Your task to perform on an android device: Open notification settings Image 0: 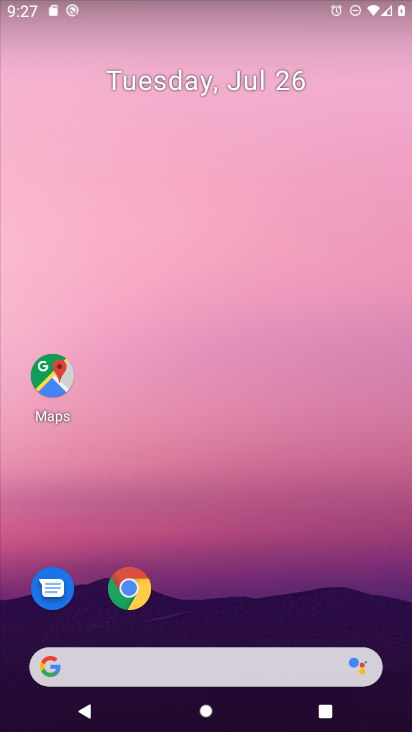
Step 0: drag from (218, 634) to (299, 33)
Your task to perform on an android device: Open notification settings Image 1: 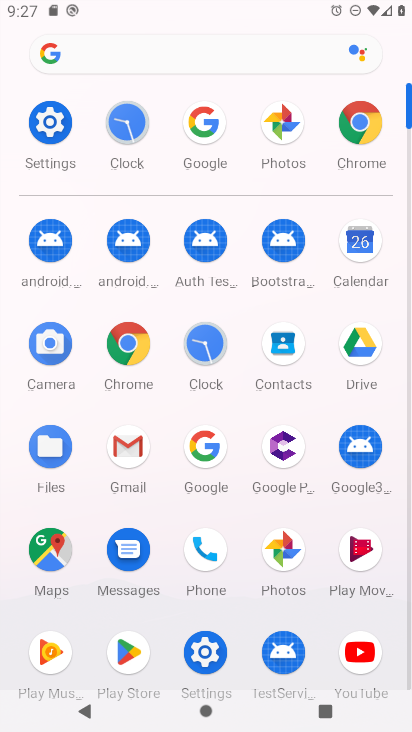
Step 1: click (65, 167)
Your task to perform on an android device: Open notification settings Image 2: 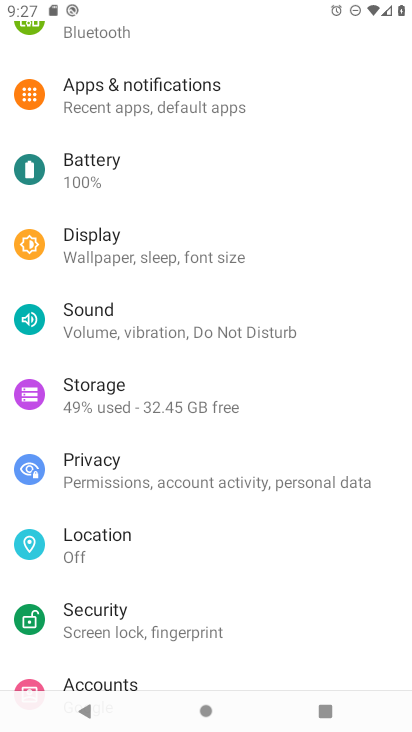
Step 2: click (170, 94)
Your task to perform on an android device: Open notification settings Image 3: 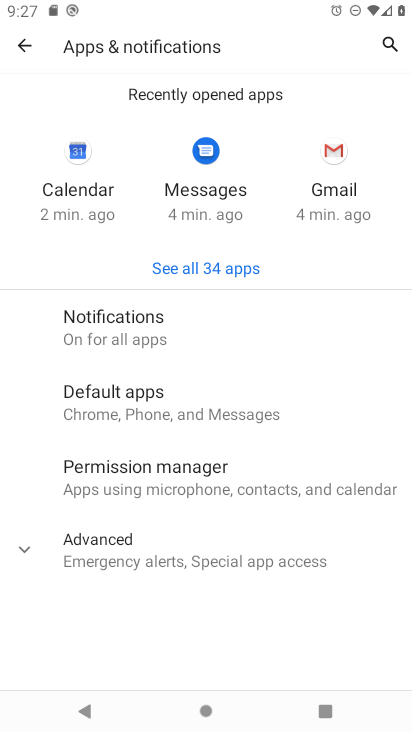
Step 3: click (162, 343)
Your task to perform on an android device: Open notification settings Image 4: 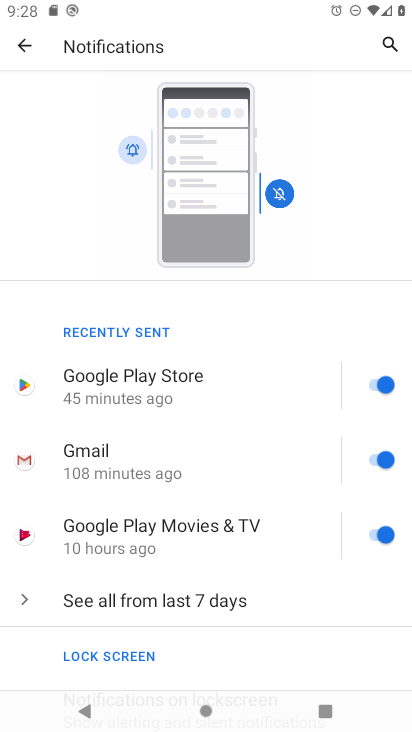
Step 4: task complete